Your task to perform on an android device: open chrome privacy settings Image 0: 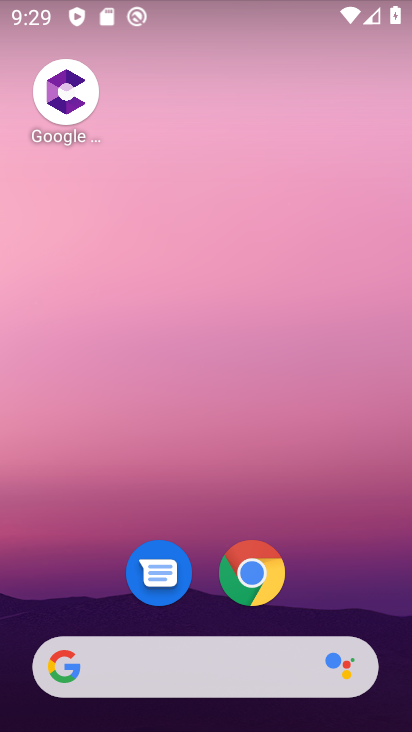
Step 0: click (256, 540)
Your task to perform on an android device: open chrome privacy settings Image 1: 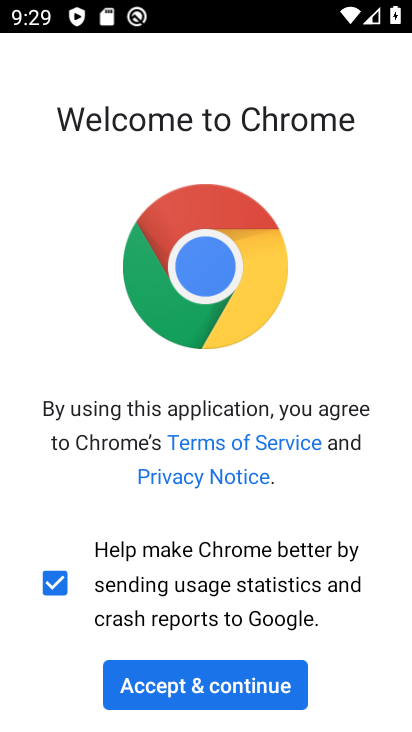
Step 1: click (192, 686)
Your task to perform on an android device: open chrome privacy settings Image 2: 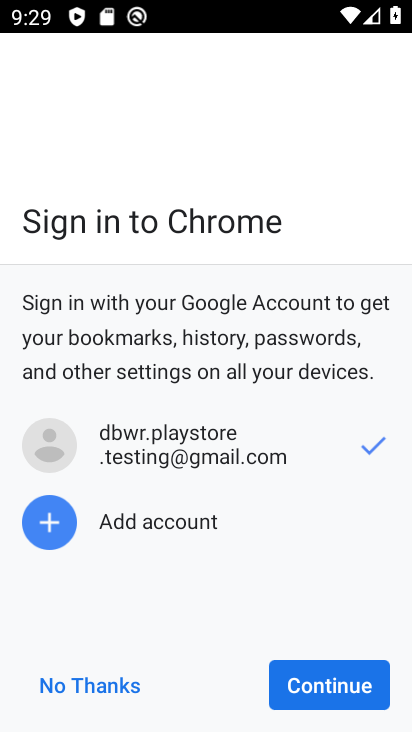
Step 2: click (347, 691)
Your task to perform on an android device: open chrome privacy settings Image 3: 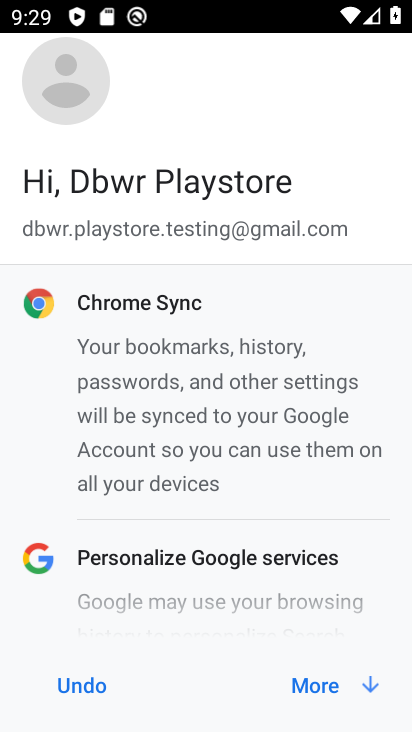
Step 3: click (322, 687)
Your task to perform on an android device: open chrome privacy settings Image 4: 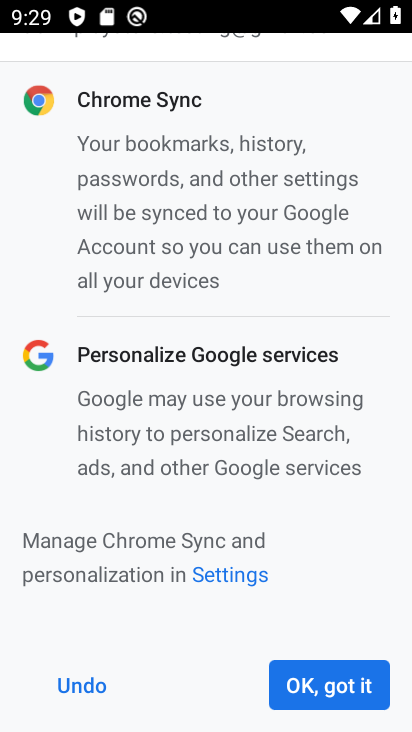
Step 4: click (322, 687)
Your task to perform on an android device: open chrome privacy settings Image 5: 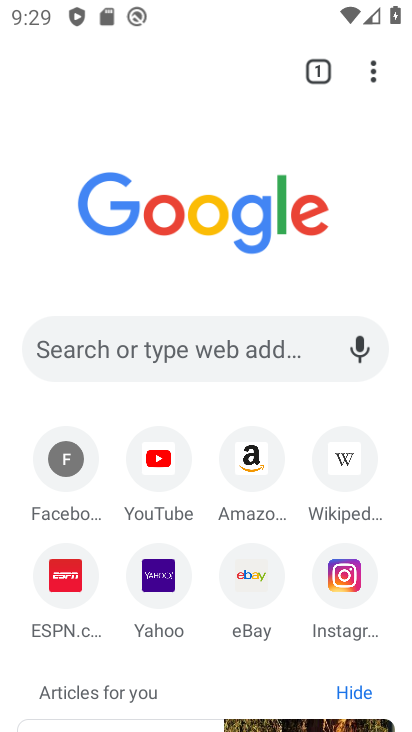
Step 5: drag from (370, 66) to (112, 585)
Your task to perform on an android device: open chrome privacy settings Image 6: 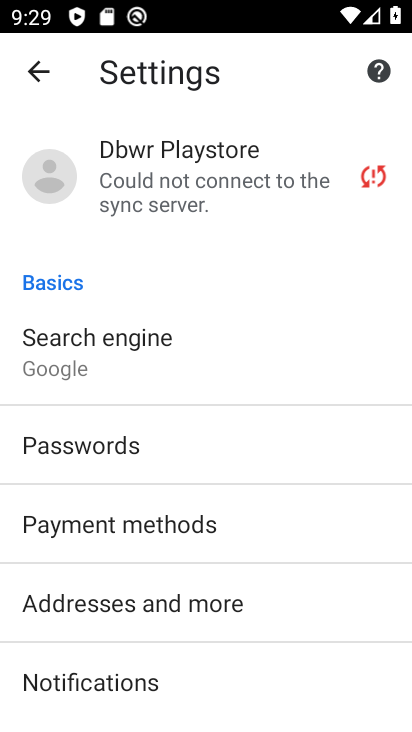
Step 6: drag from (324, 691) to (330, 168)
Your task to perform on an android device: open chrome privacy settings Image 7: 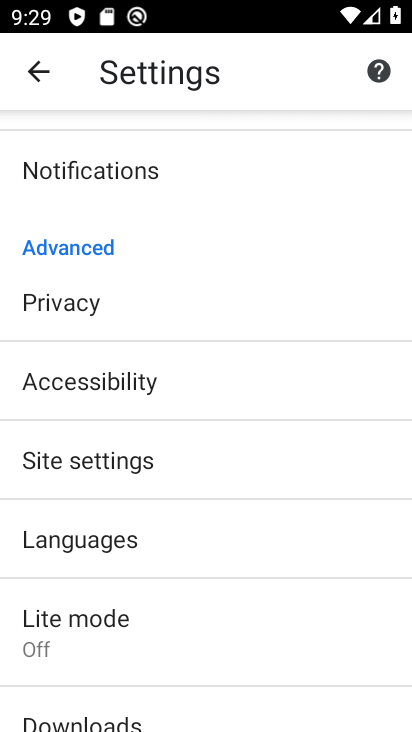
Step 7: click (40, 310)
Your task to perform on an android device: open chrome privacy settings Image 8: 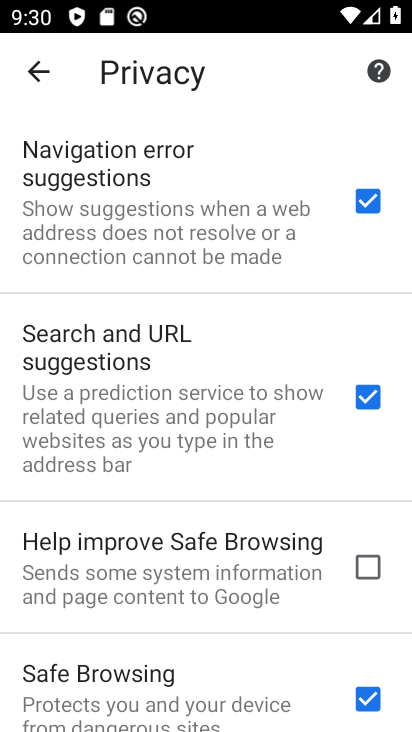
Step 8: task complete